Your task to perform on an android device: Open the stopwatch Image 0: 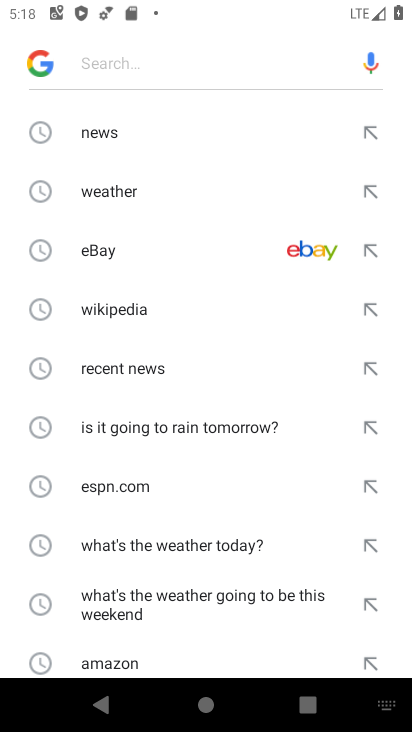
Step 0: press back button
Your task to perform on an android device: Open the stopwatch Image 1: 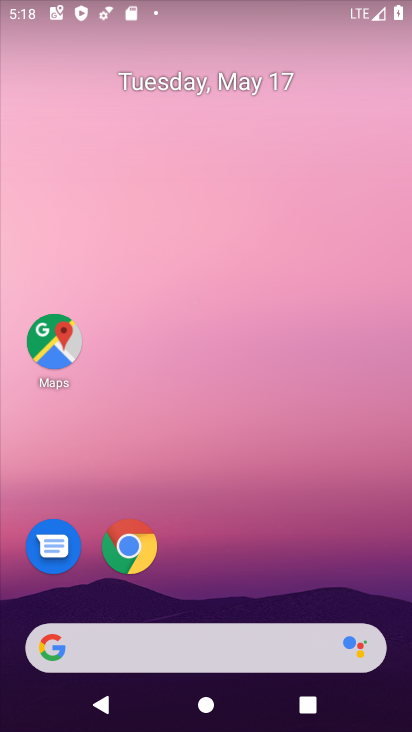
Step 1: drag from (211, 601) to (177, 209)
Your task to perform on an android device: Open the stopwatch Image 2: 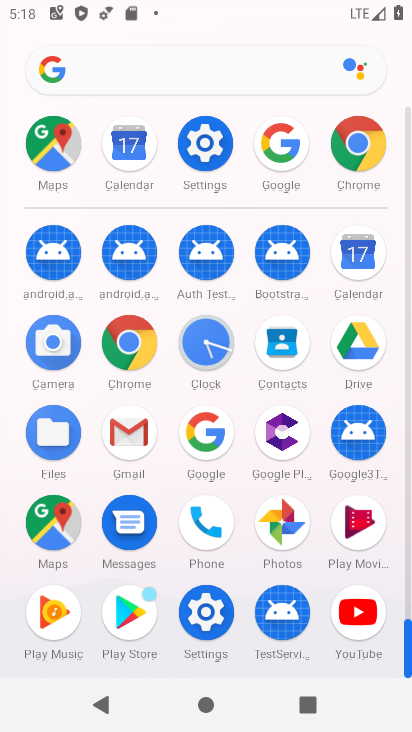
Step 2: click (201, 367)
Your task to perform on an android device: Open the stopwatch Image 3: 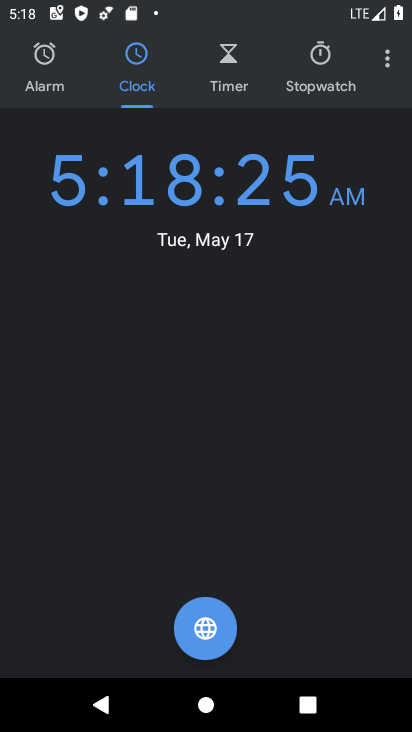
Step 3: click (388, 64)
Your task to perform on an android device: Open the stopwatch Image 4: 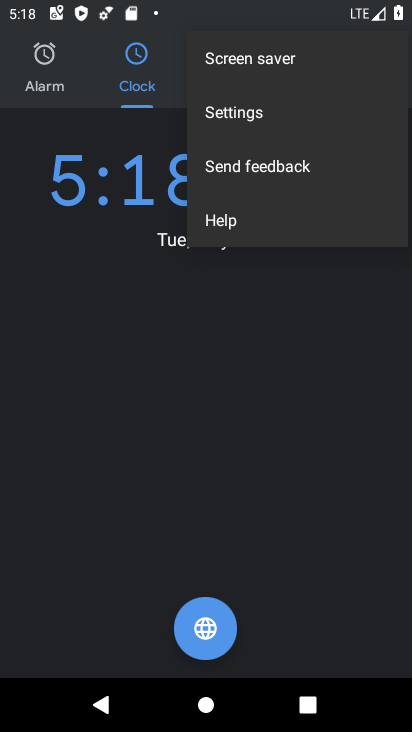
Step 4: click (94, 239)
Your task to perform on an android device: Open the stopwatch Image 5: 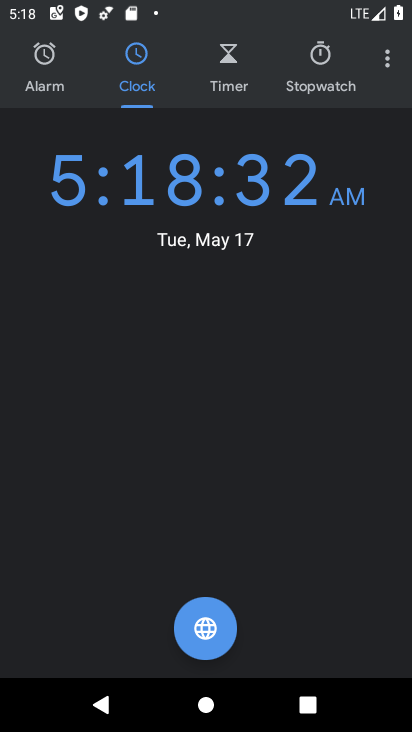
Step 5: click (319, 78)
Your task to perform on an android device: Open the stopwatch Image 6: 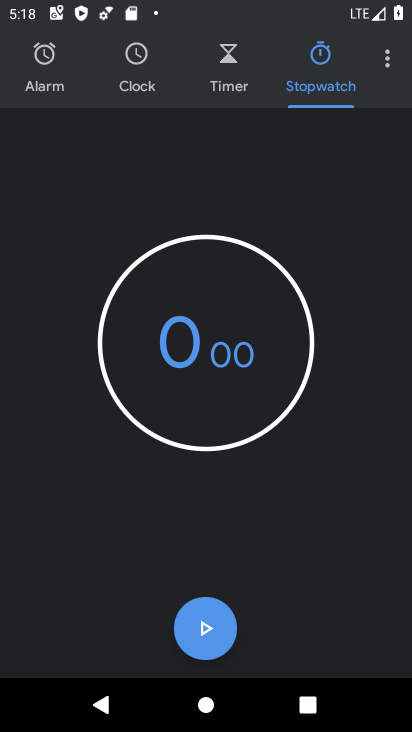
Step 6: task complete